Your task to perform on an android device: change your default location settings in chrome Image 0: 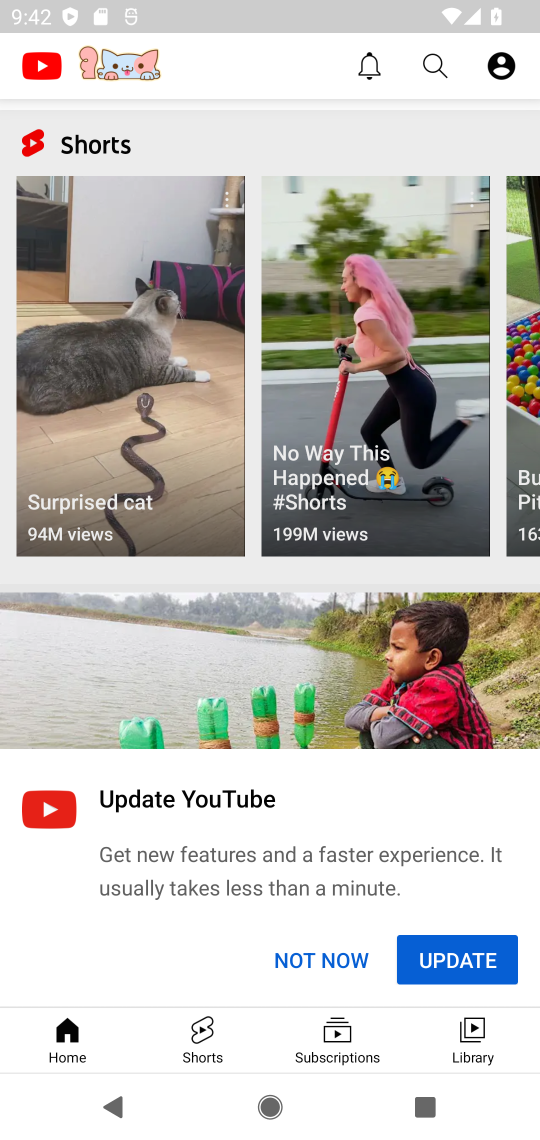
Step 0: click (142, 1001)
Your task to perform on an android device: change your default location settings in chrome Image 1: 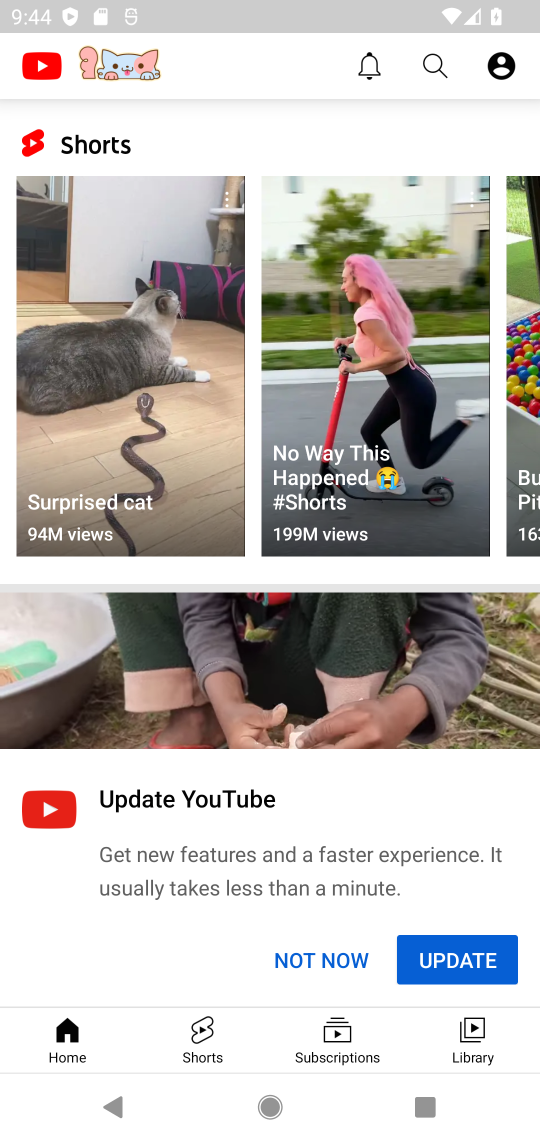
Step 1: press home button
Your task to perform on an android device: change your default location settings in chrome Image 2: 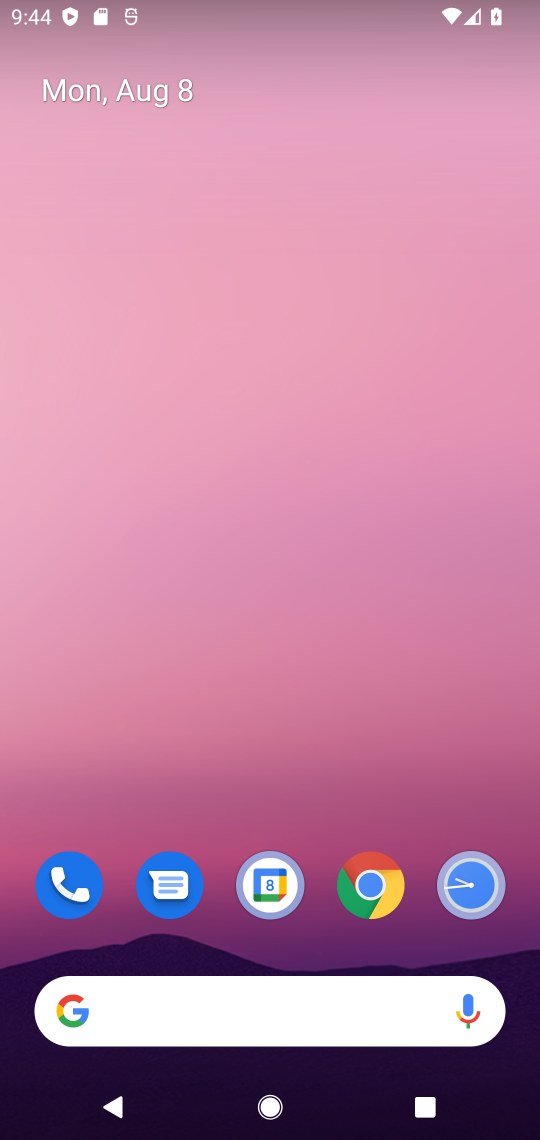
Step 2: click (407, 872)
Your task to perform on an android device: change your default location settings in chrome Image 3: 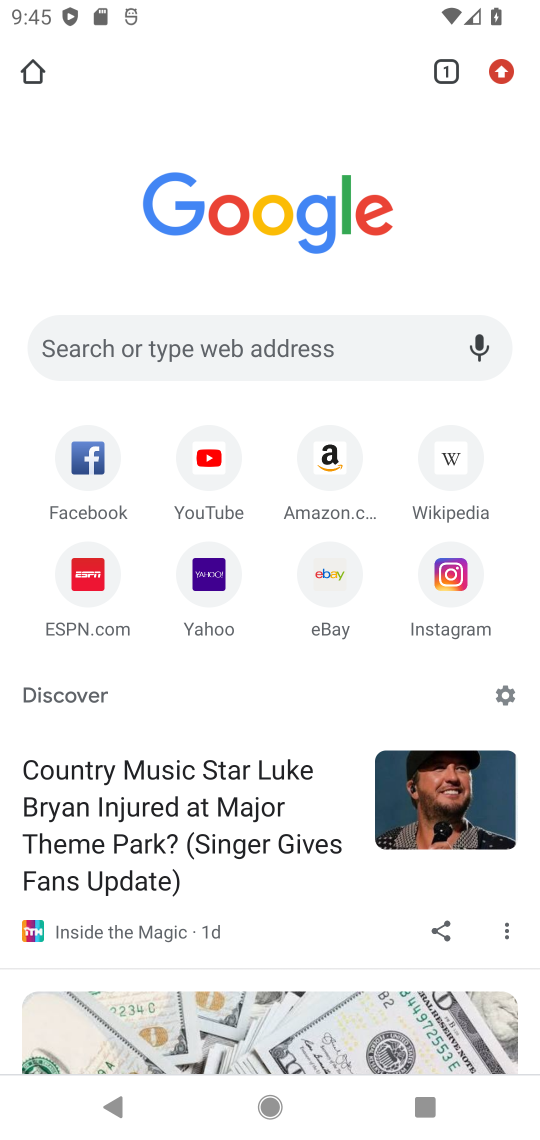
Step 3: click (494, 61)
Your task to perform on an android device: change your default location settings in chrome Image 4: 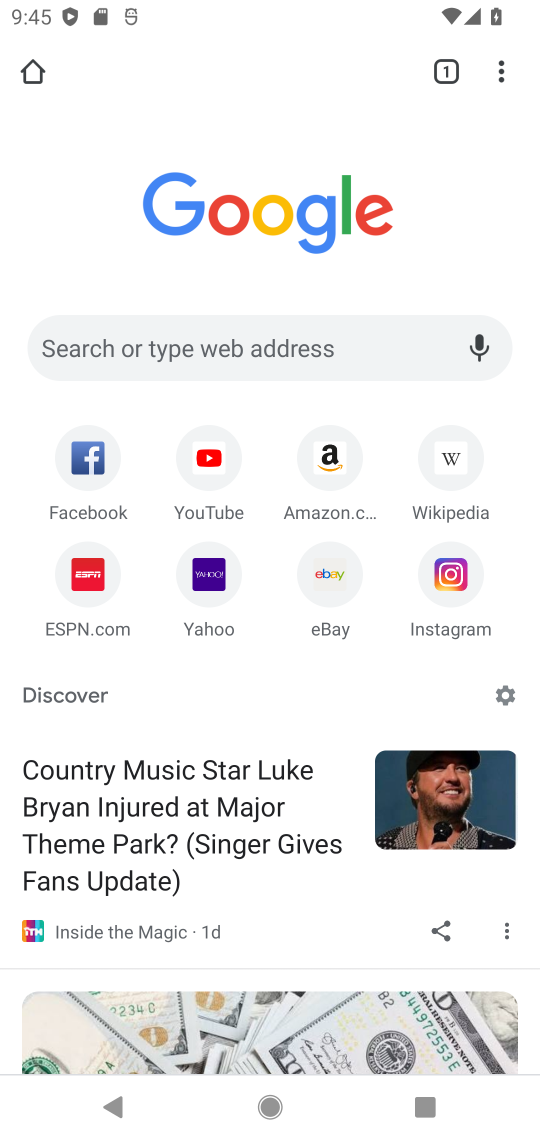
Step 4: click (507, 76)
Your task to perform on an android device: change your default location settings in chrome Image 5: 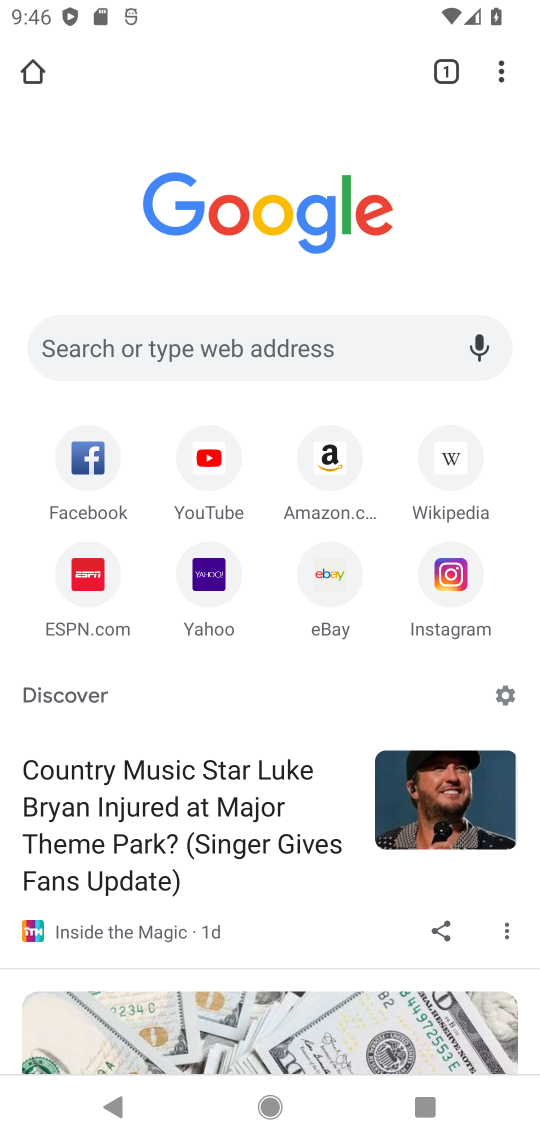
Step 5: click (514, 44)
Your task to perform on an android device: change your default location settings in chrome Image 6: 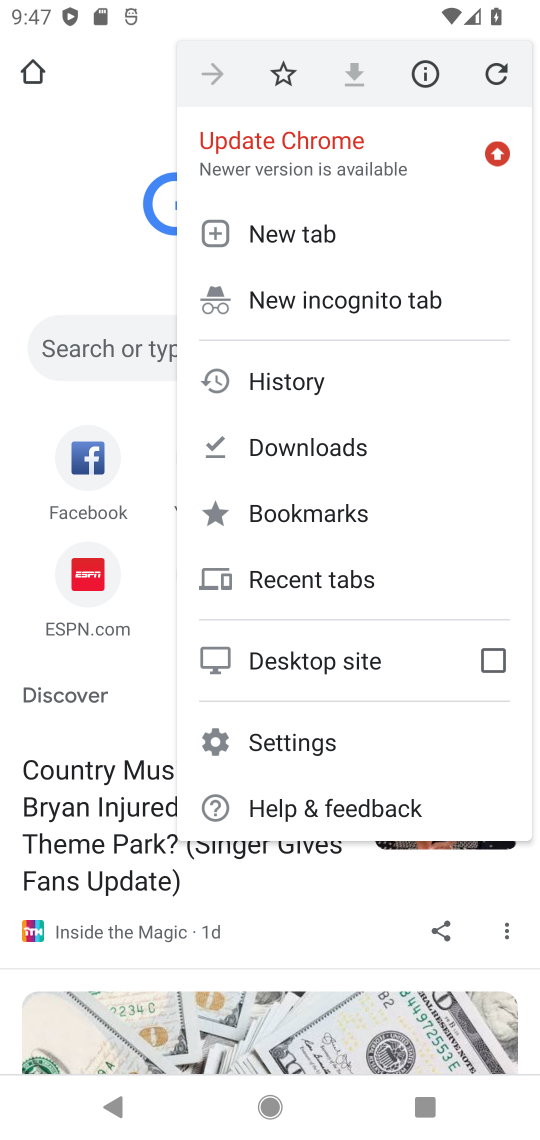
Step 6: click (339, 744)
Your task to perform on an android device: change your default location settings in chrome Image 7: 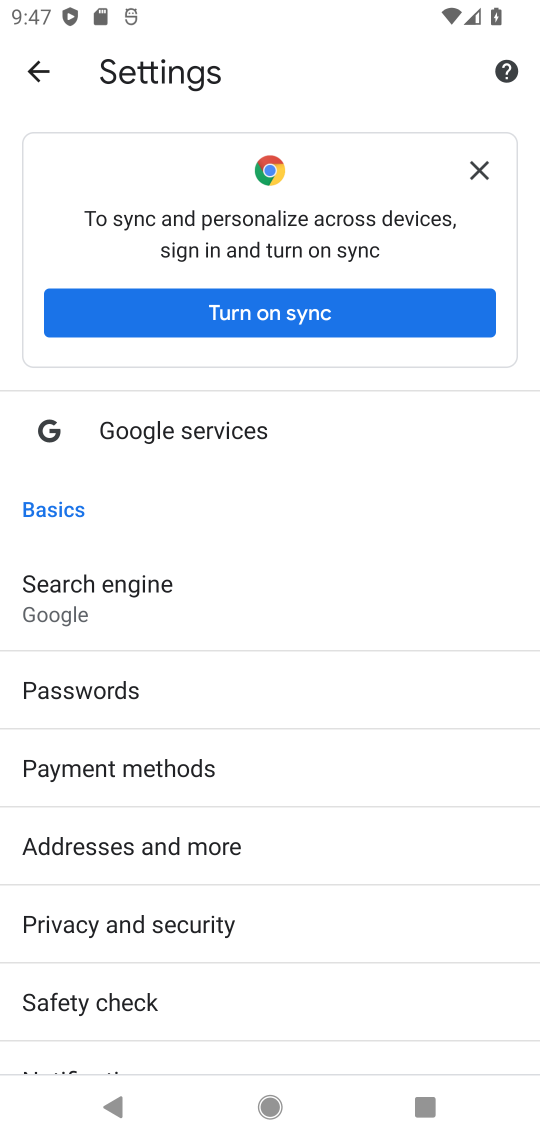
Step 7: drag from (406, 993) to (302, 466)
Your task to perform on an android device: change your default location settings in chrome Image 8: 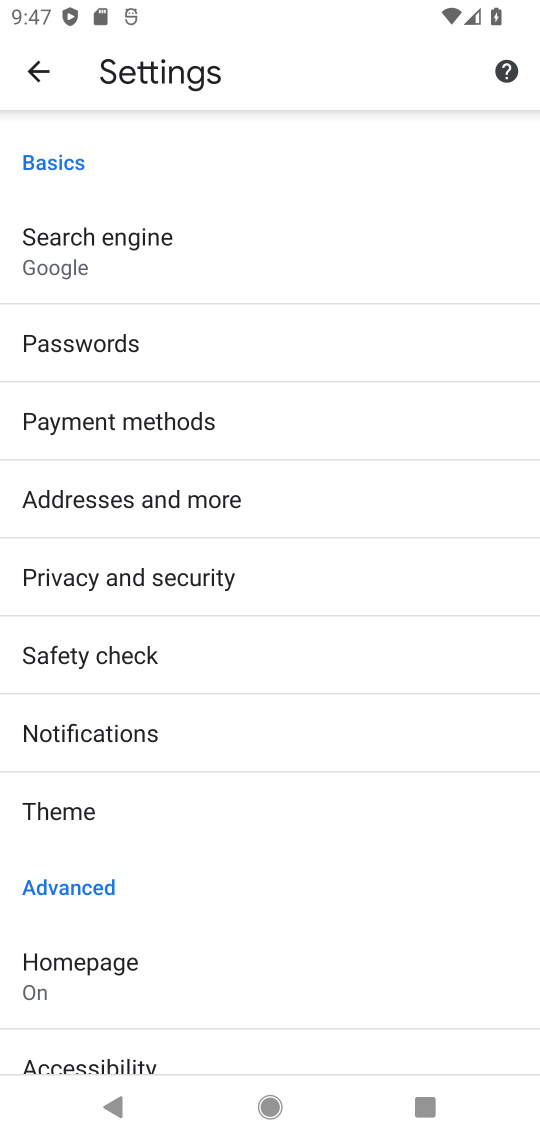
Step 8: drag from (377, 1014) to (394, 214)
Your task to perform on an android device: change your default location settings in chrome Image 9: 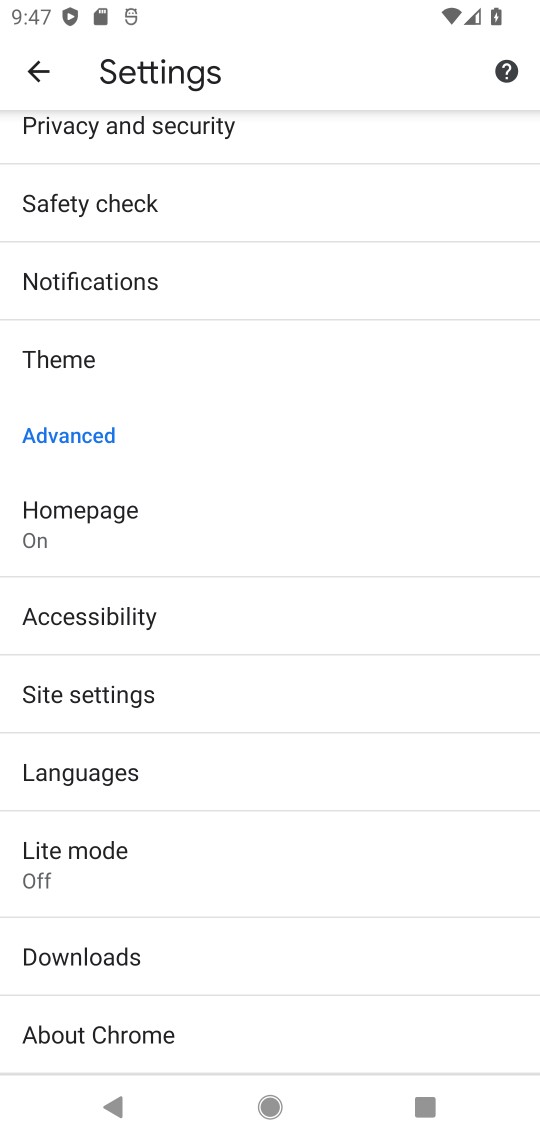
Step 9: drag from (268, 998) to (320, 326)
Your task to perform on an android device: change your default location settings in chrome Image 10: 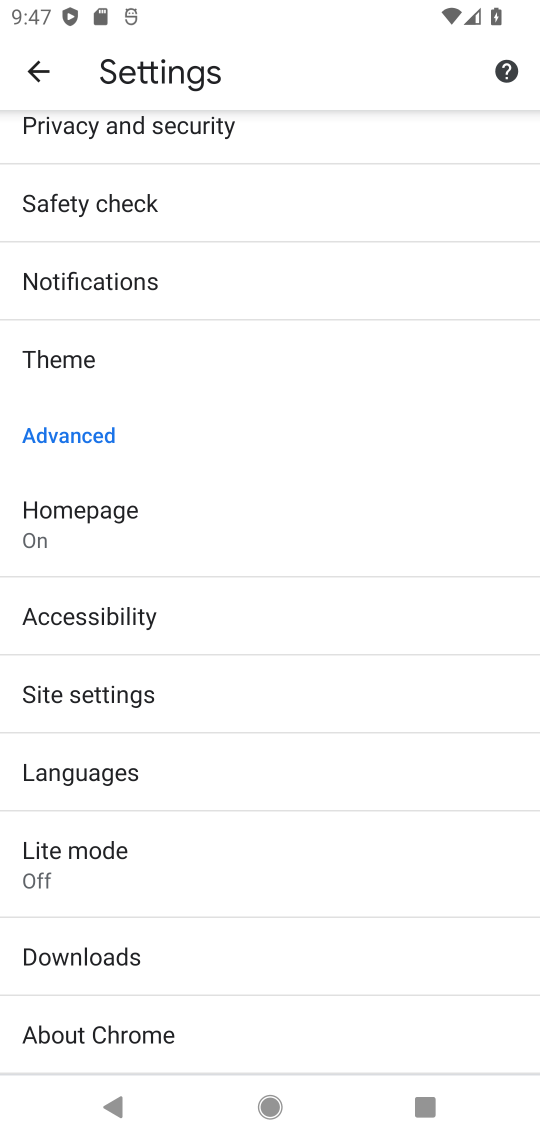
Step 10: click (197, 678)
Your task to perform on an android device: change your default location settings in chrome Image 11: 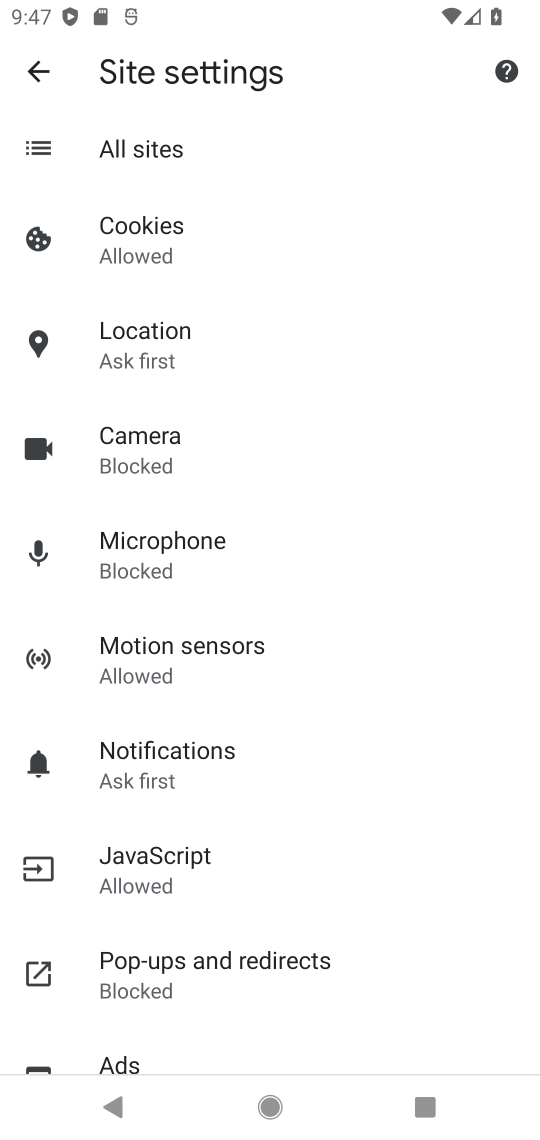
Step 11: click (155, 331)
Your task to perform on an android device: change your default location settings in chrome Image 12: 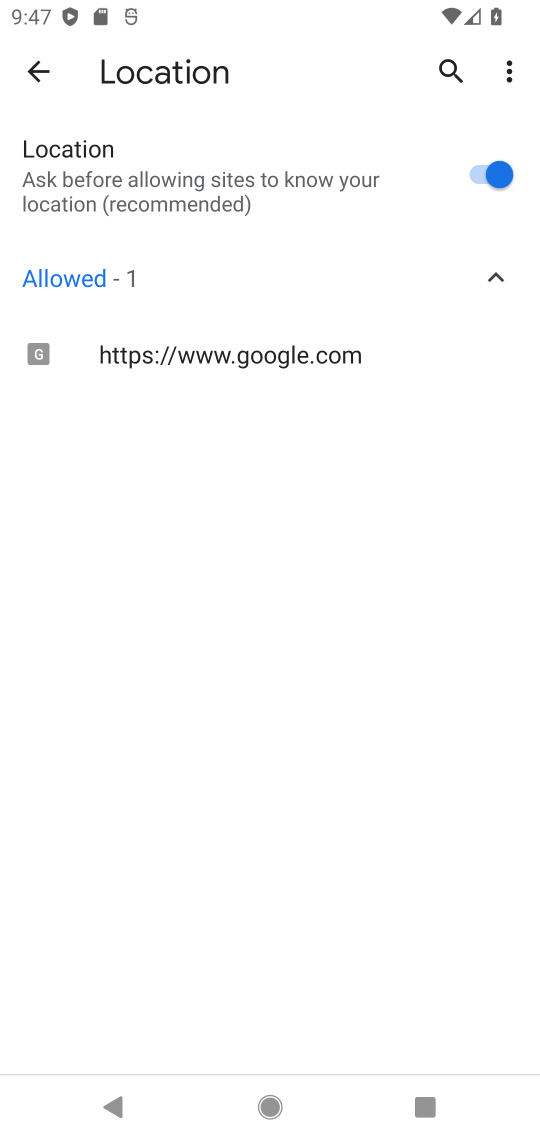
Step 12: click (505, 155)
Your task to perform on an android device: change your default location settings in chrome Image 13: 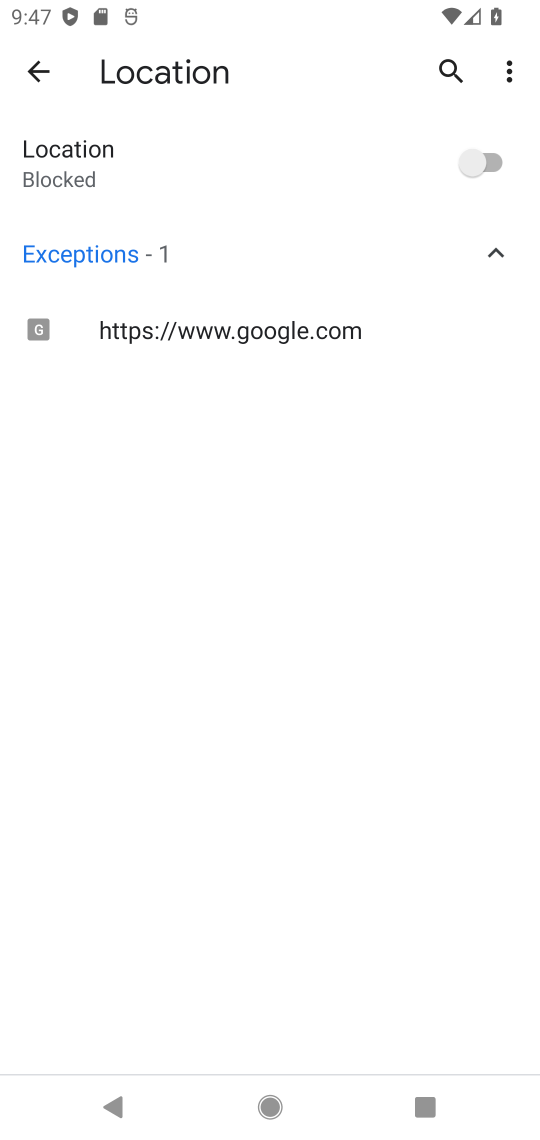
Step 13: task complete